Your task to perform on an android device: check data usage Image 0: 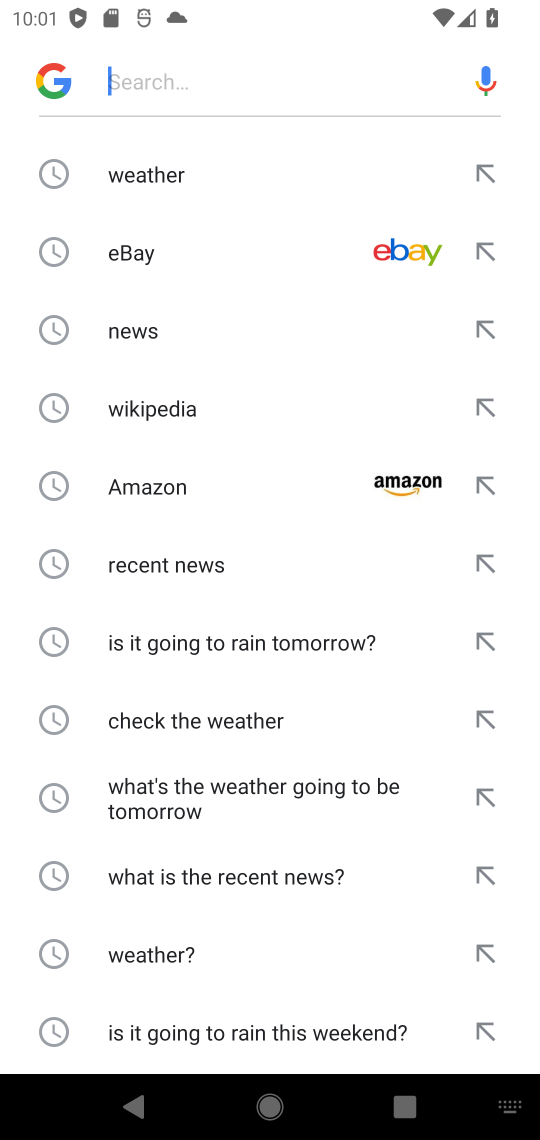
Step 0: press home button
Your task to perform on an android device: check data usage Image 1: 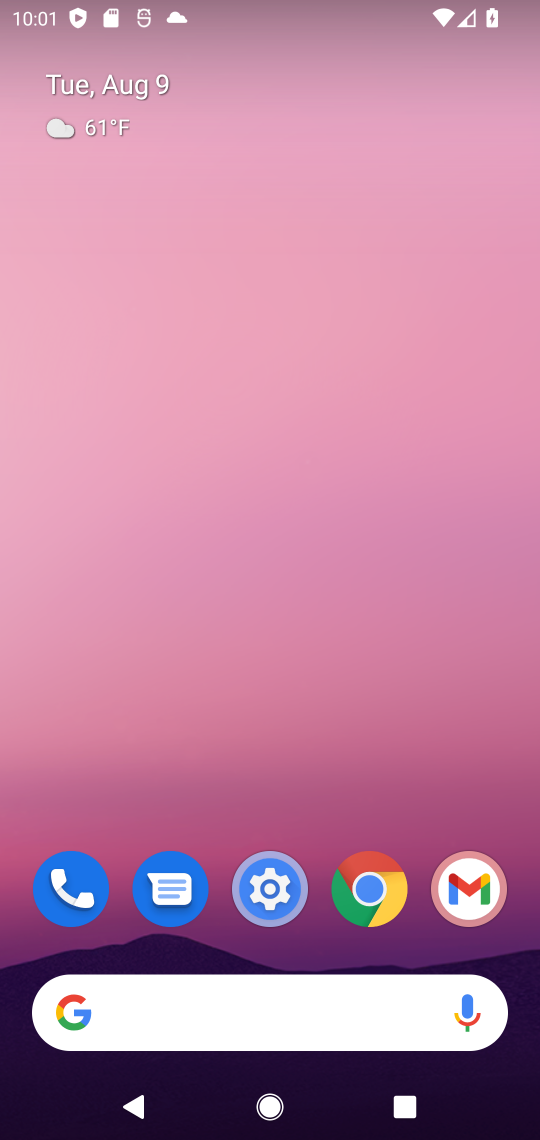
Step 1: drag from (253, 887) to (200, 163)
Your task to perform on an android device: check data usage Image 2: 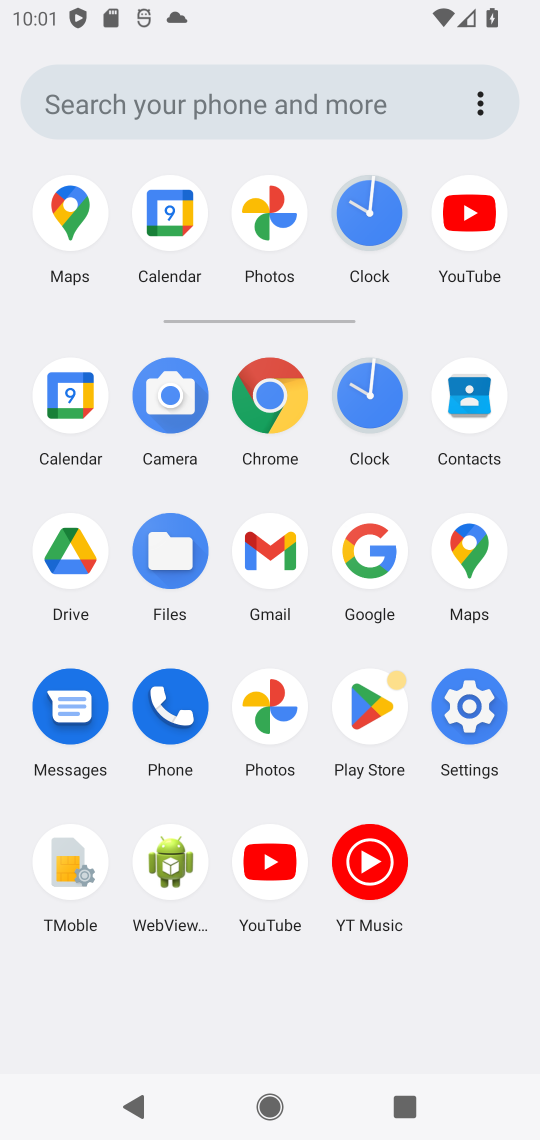
Step 2: click (486, 722)
Your task to perform on an android device: check data usage Image 3: 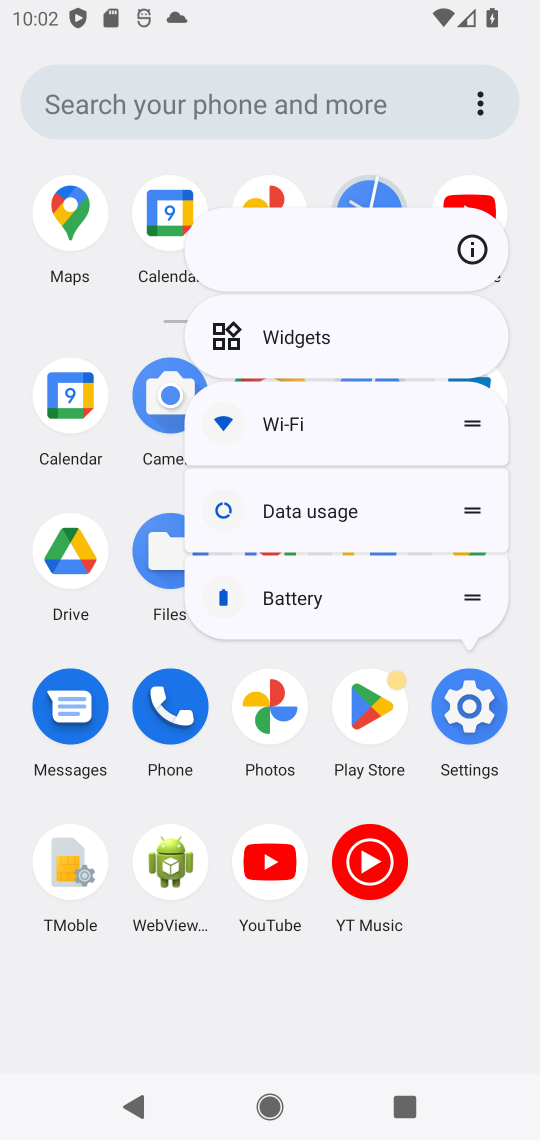
Step 3: click (479, 719)
Your task to perform on an android device: check data usage Image 4: 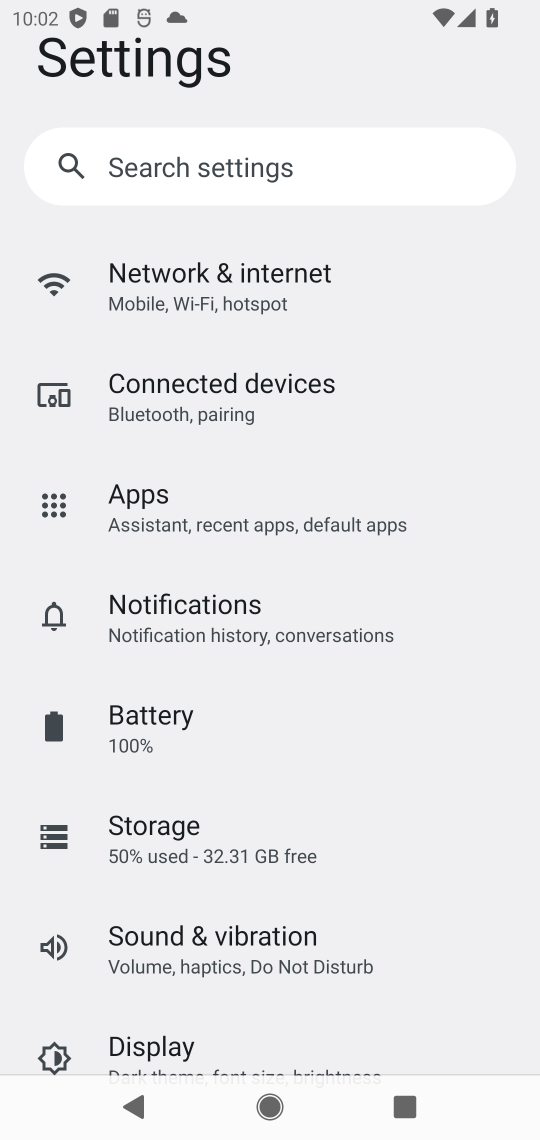
Step 4: click (277, 306)
Your task to perform on an android device: check data usage Image 5: 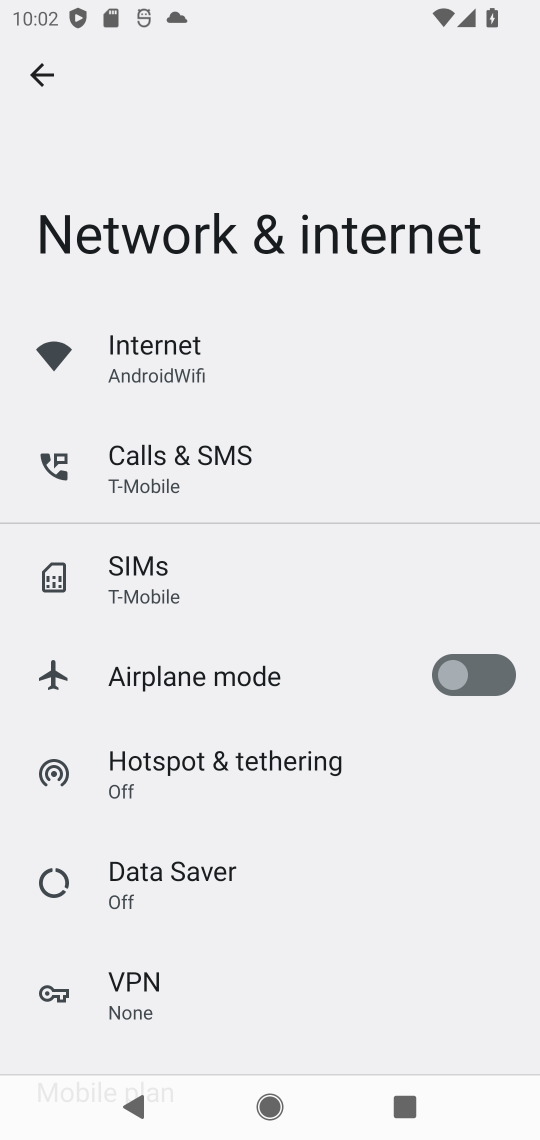
Step 5: click (157, 365)
Your task to perform on an android device: check data usage Image 6: 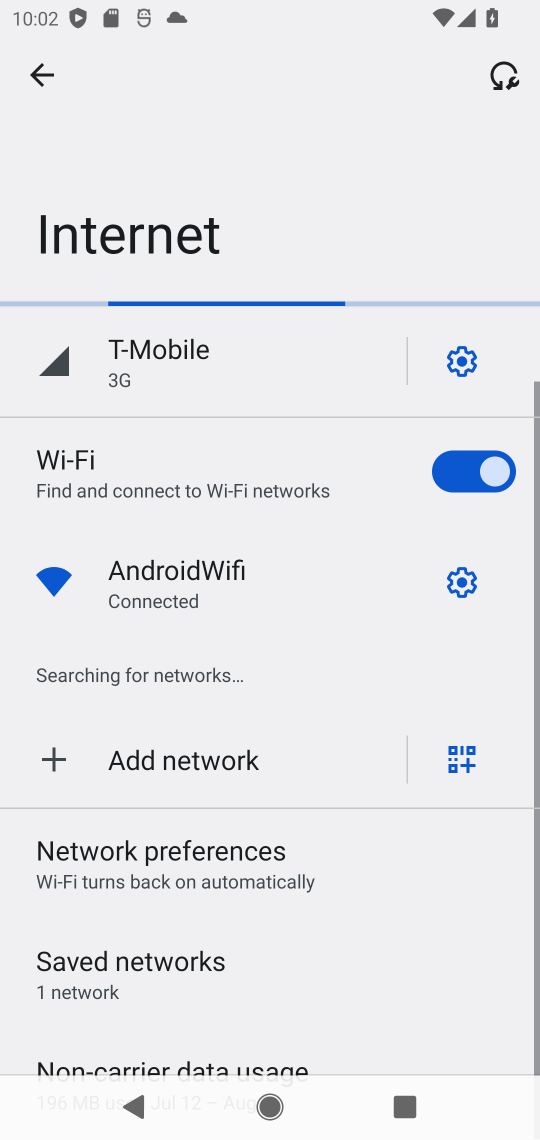
Step 6: click (133, 399)
Your task to perform on an android device: check data usage Image 7: 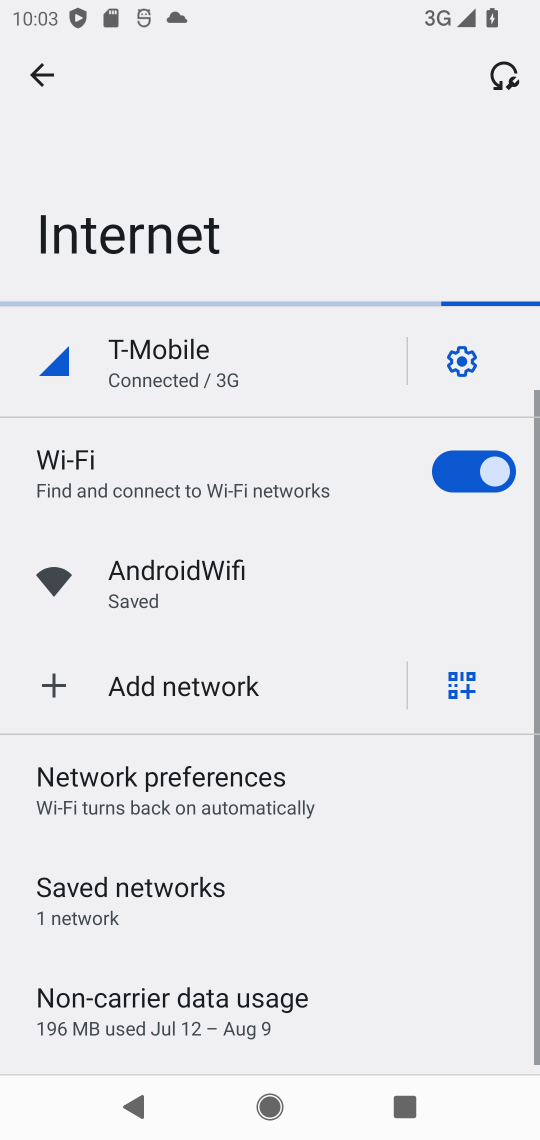
Step 7: task complete